Your task to perform on an android device: Open my contact list Image 0: 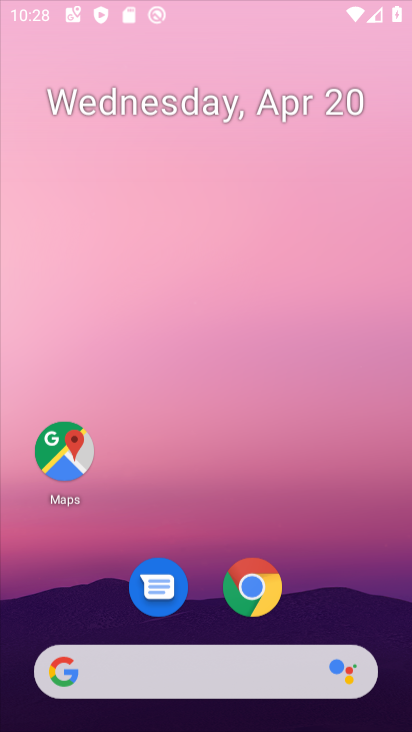
Step 0: click (242, 121)
Your task to perform on an android device: Open my contact list Image 1: 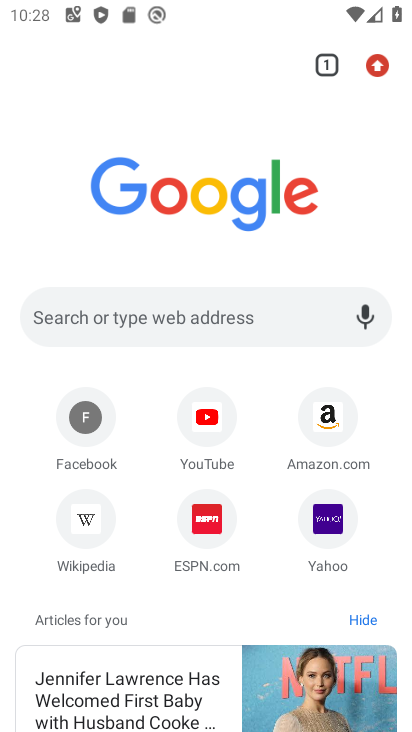
Step 1: press home button
Your task to perform on an android device: Open my contact list Image 2: 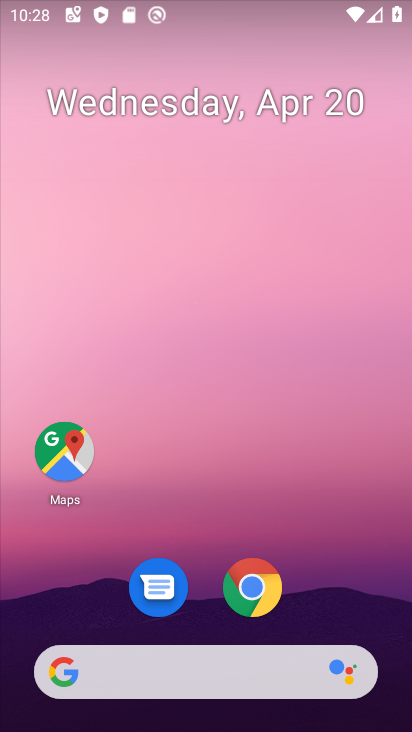
Step 2: drag from (210, 568) to (255, 30)
Your task to perform on an android device: Open my contact list Image 3: 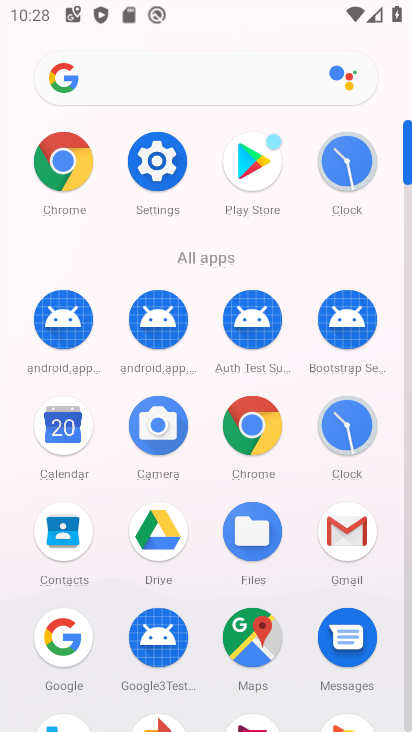
Step 3: click (60, 524)
Your task to perform on an android device: Open my contact list Image 4: 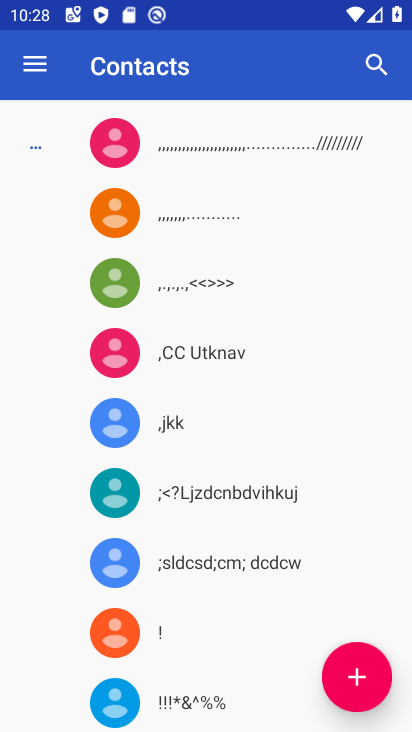
Step 4: task complete